Your task to perform on an android device: search for starred emails in the gmail app Image 0: 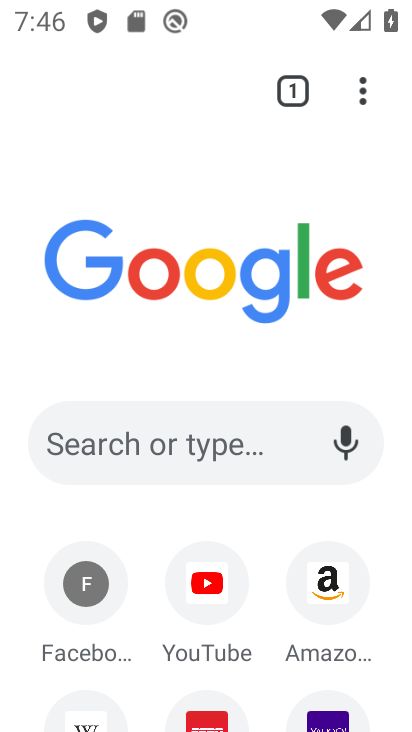
Step 0: press home button
Your task to perform on an android device: search for starred emails in the gmail app Image 1: 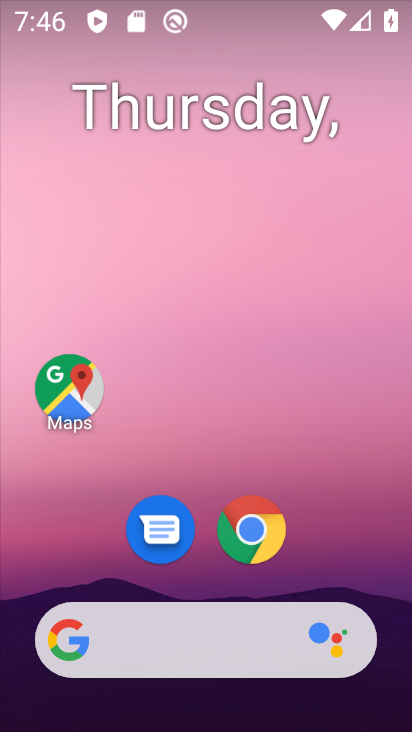
Step 1: drag from (218, 573) to (291, 21)
Your task to perform on an android device: search for starred emails in the gmail app Image 2: 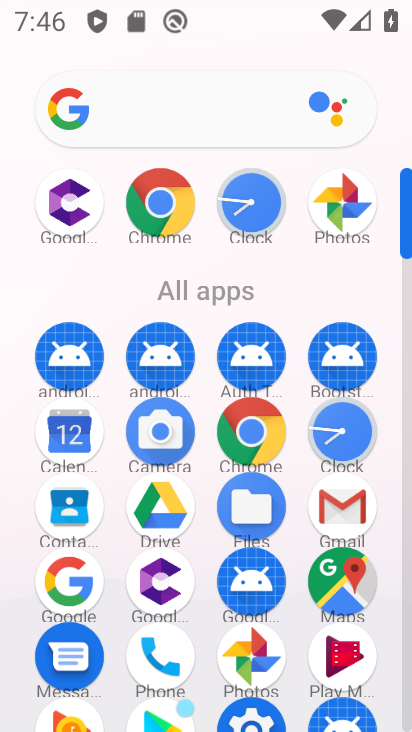
Step 2: click (349, 526)
Your task to perform on an android device: search for starred emails in the gmail app Image 3: 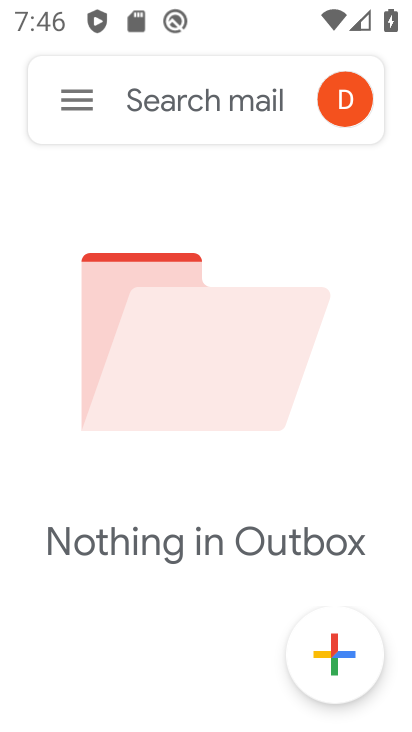
Step 3: click (83, 112)
Your task to perform on an android device: search for starred emails in the gmail app Image 4: 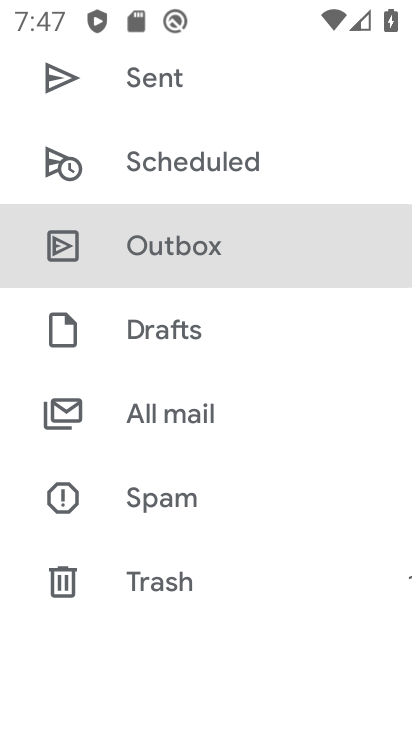
Step 4: drag from (308, 139) to (307, 615)
Your task to perform on an android device: search for starred emails in the gmail app Image 5: 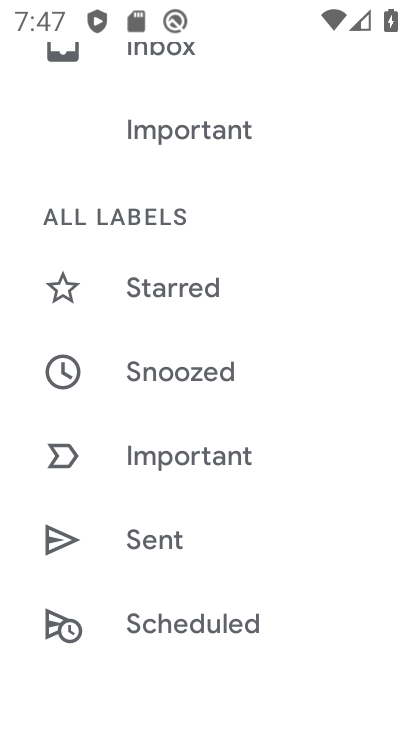
Step 5: click (219, 282)
Your task to perform on an android device: search for starred emails in the gmail app Image 6: 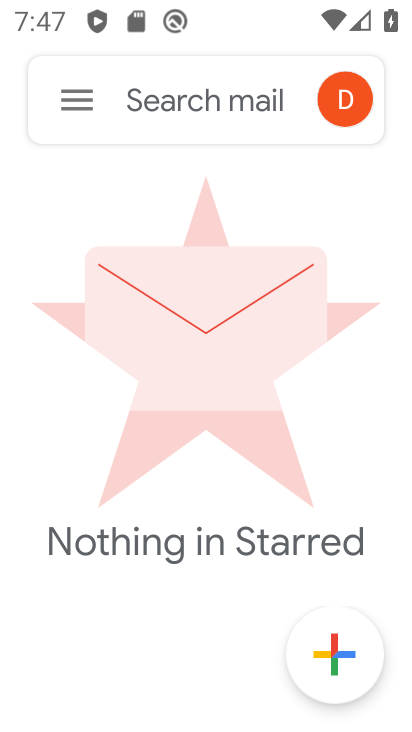
Step 6: task complete